Your task to perform on an android device: Go to Reddit.com Image 0: 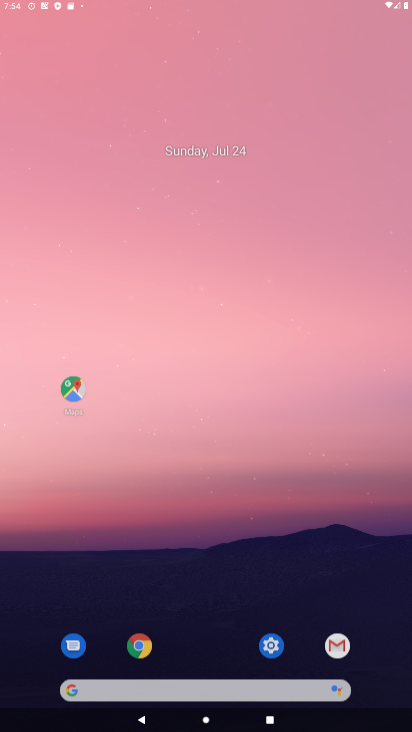
Step 0: click (129, 653)
Your task to perform on an android device: Go to Reddit.com Image 1: 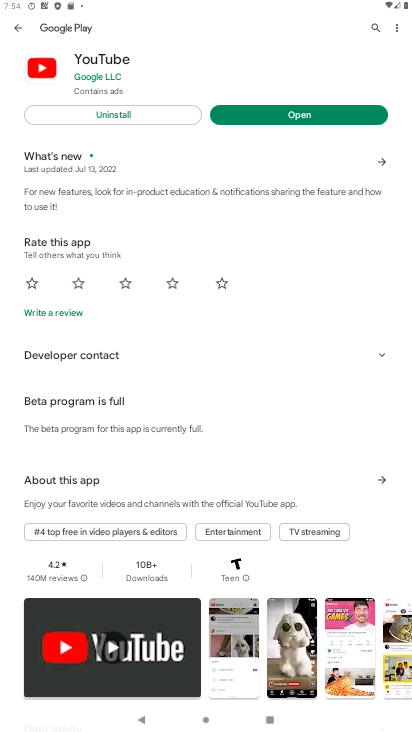
Step 1: press home button
Your task to perform on an android device: Go to Reddit.com Image 2: 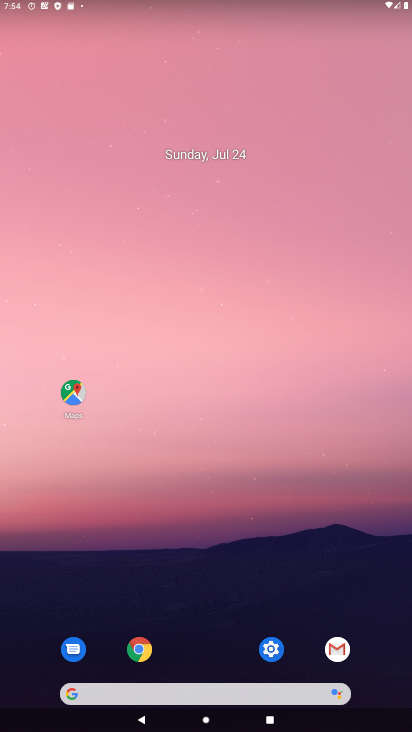
Step 2: click (143, 644)
Your task to perform on an android device: Go to Reddit.com Image 3: 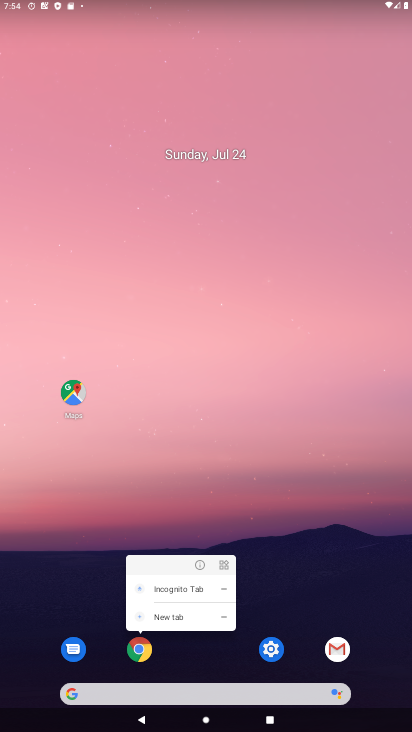
Step 3: click (141, 647)
Your task to perform on an android device: Go to Reddit.com Image 4: 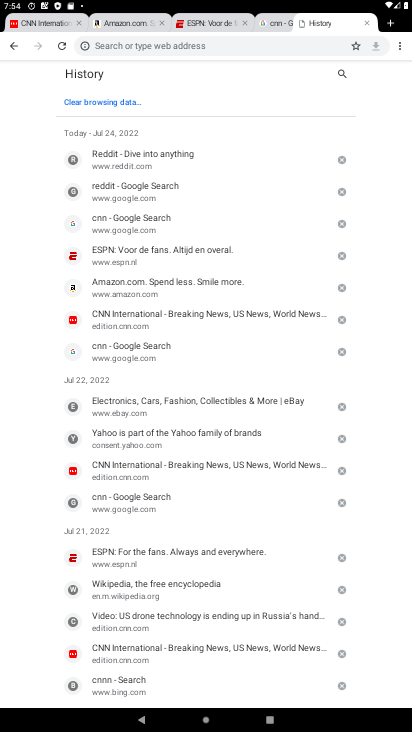
Step 4: click (171, 40)
Your task to perform on an android device: Go to Reddit.com Image 5: 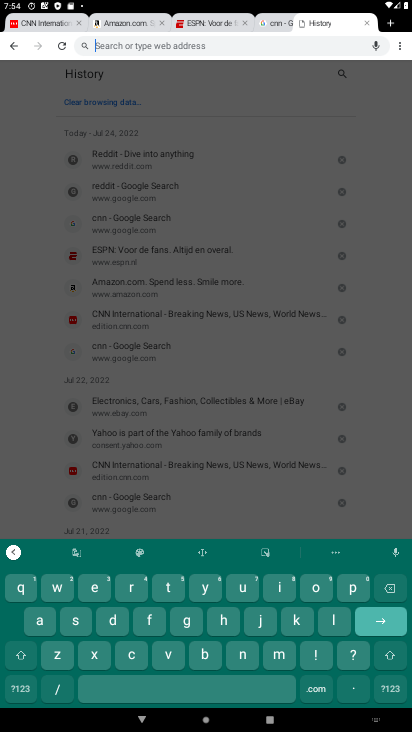
Step 5: click (130, 587)
Your task to perform on an android device: Go to Reddit.com Image 6: 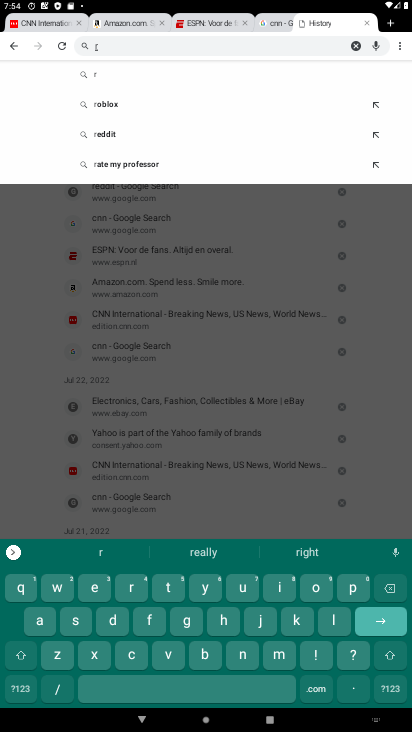
Step 6: click (99, 136)
Your task to perform on an android device: Go to Reddit.com Image 7: 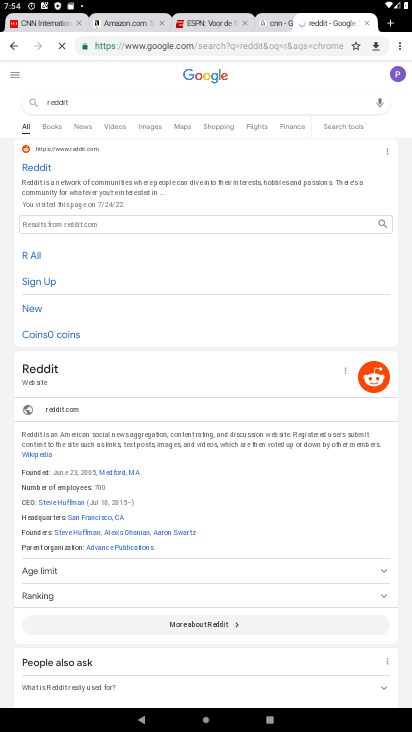
Step 7: click (30, 171)
Your task to perform on an android device: Go to Reddit.com Image 8: 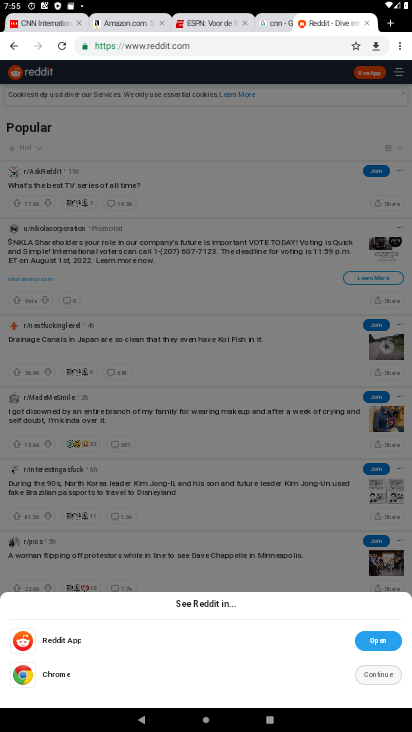
Step 8: click (384, 673)
Your task to perform on an android device: Go to Reddit.com Image 9: 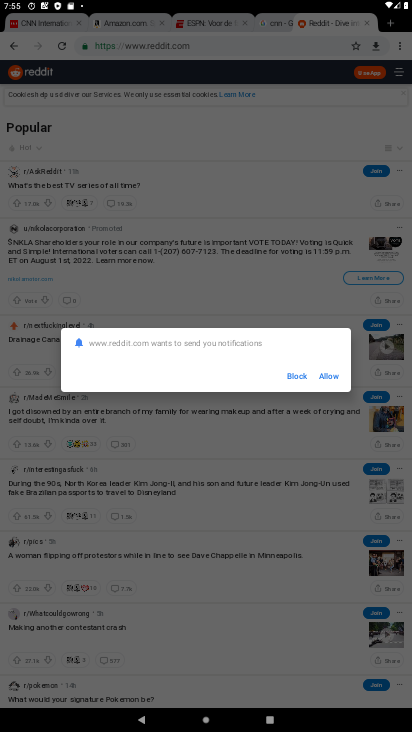
Step 9: drag from (326, 379) to (250, 430)
Your task to perform on an android device: Go to Reddit.com Image 10: 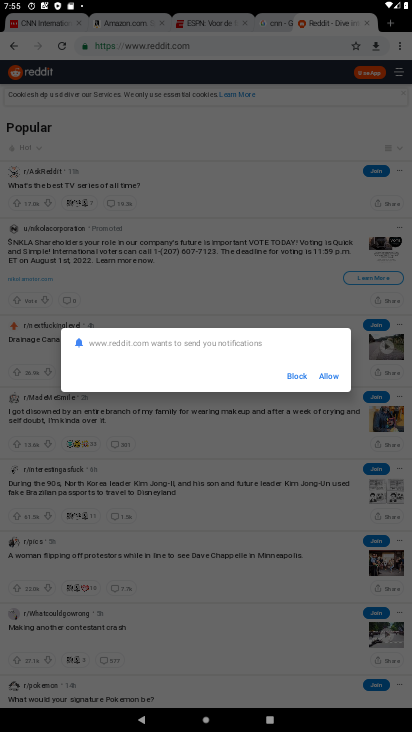
Step 10: click (328, 381)
Your task to perform on an android device: Go to Reddit.com Image 11: 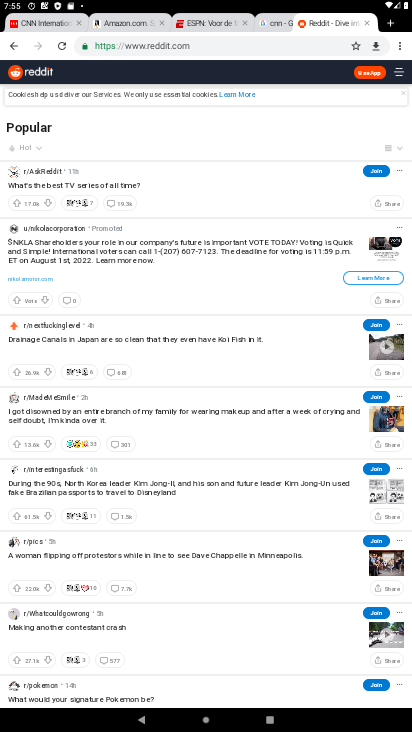
Step 11: task complete